Your task to perform on an android device: Open Google Maps and go to "Timeline" Image 0: 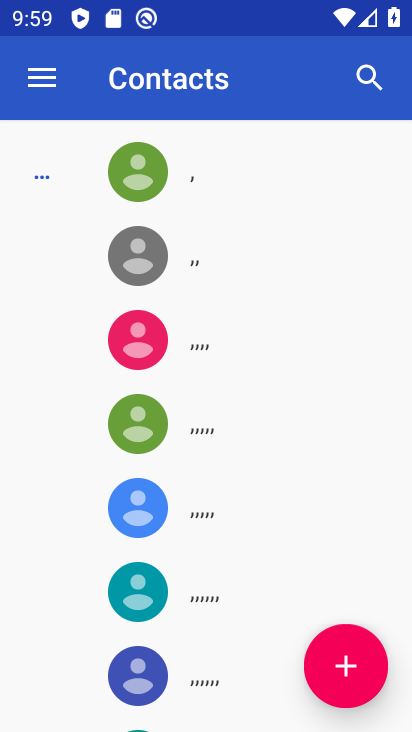
Step 0: press home button
Your task to perform on an android device: Open Google Maps and go to "Timeline" Image 1: 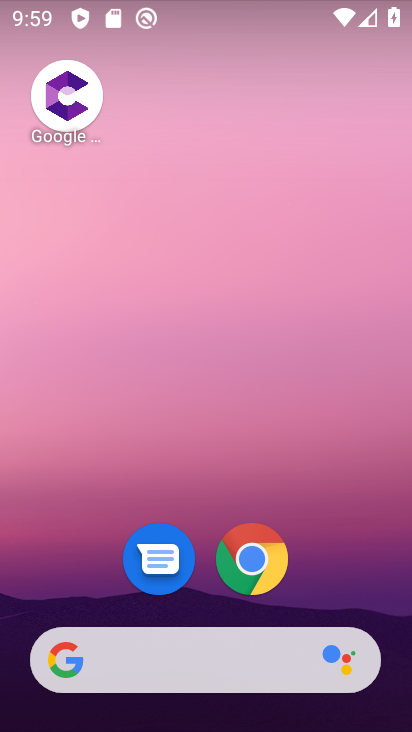
Step 1: drag from (368, 575) to (362, 104)
Your task to perform on an android device: Open Google Maps and go to "Timeline" Image 2: 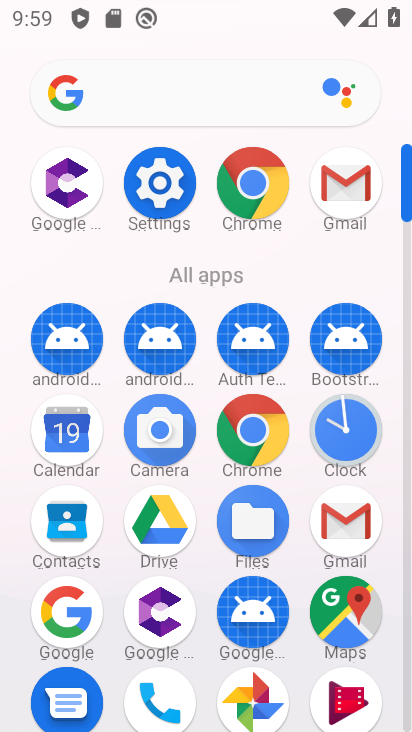
Step 2: click (358, 630)
Your task to perform on an android device: Open Google Maps and go to "Timeline" Image 3: 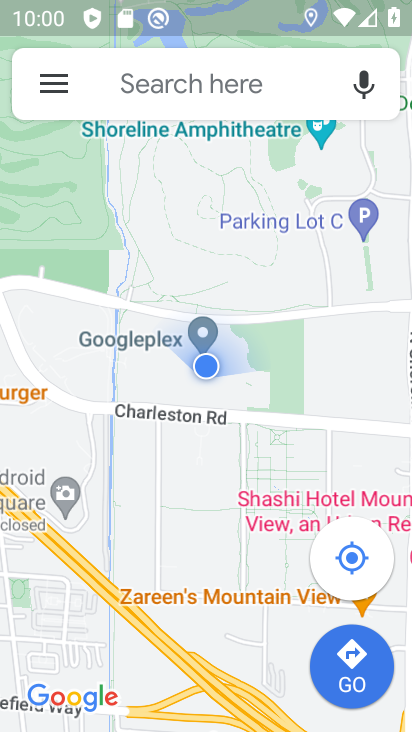
Step 3: click (57, 84)
Your task to perform on an android device: Open Google Maps and go to "Timeline" Image 4: 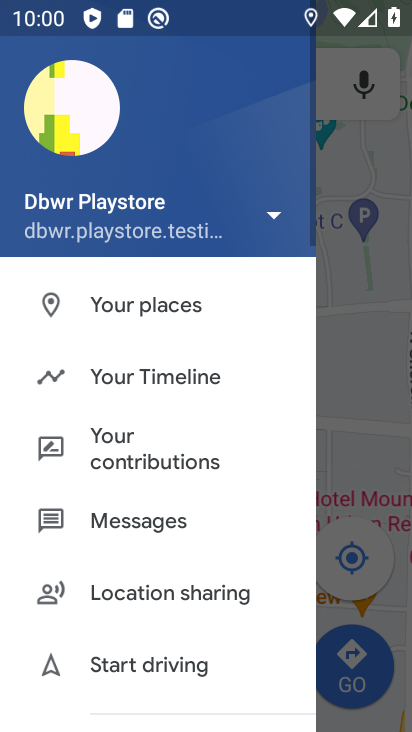
Step 4: click (99, 367)
Your task to perform on an android device: Open Google Maps and go to "Timeline" Image 5: 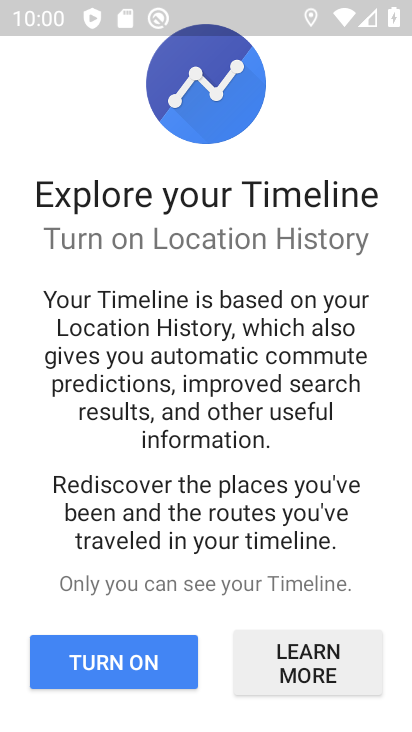
Step 5: drag from (216, 633) to (209, 217)
Your task to perform on an android device: Open Google Maps and go to "Timeline" Image 6: 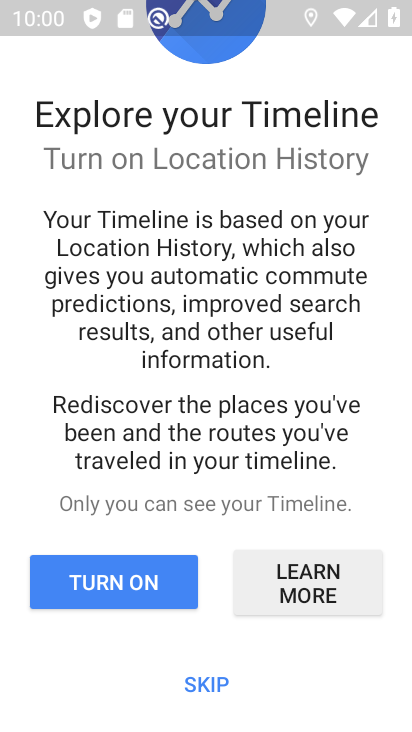
Step 6: click (219, 693)
Your task to perform on an android device: Open Google Maps and go to "Timeline" Image 7: 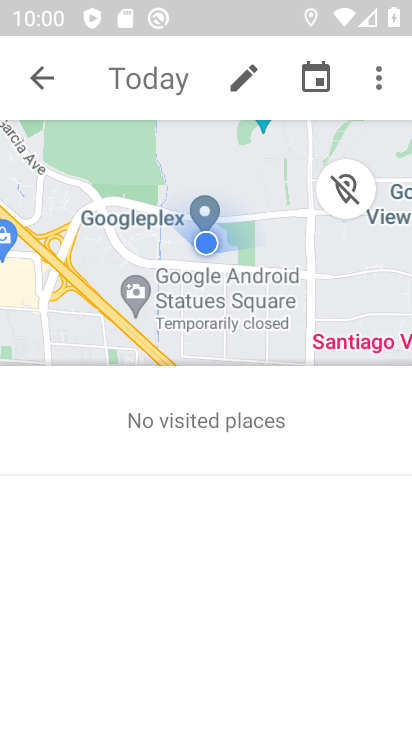
Step 7: click (378, 81)
Your task to perform on an android device: Open Google Maps and go to "Timeline" Image 8: 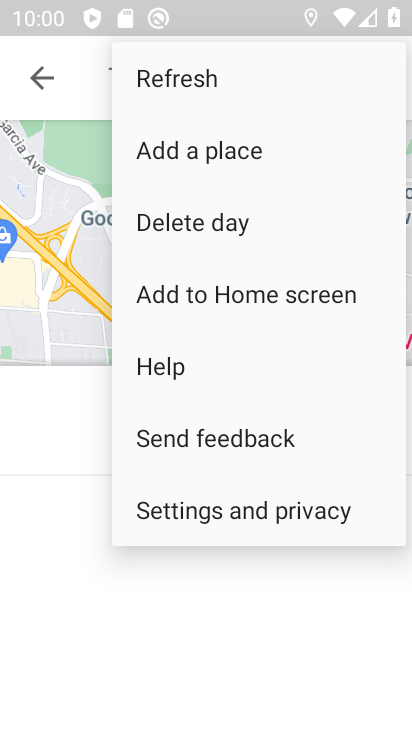
Step 8: click (120, 515)
Your task to perform on an android device: Open Google Maps and go to "Timeline" Image 9: 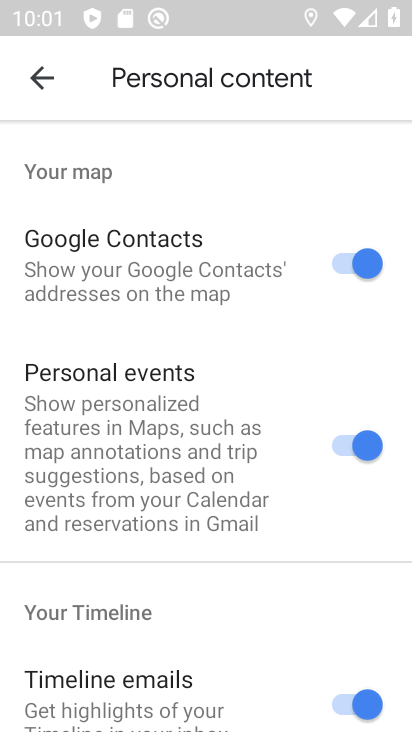
Step 9: task complete